Your task to perform on an android device: Go to Reddit.com Image 0: 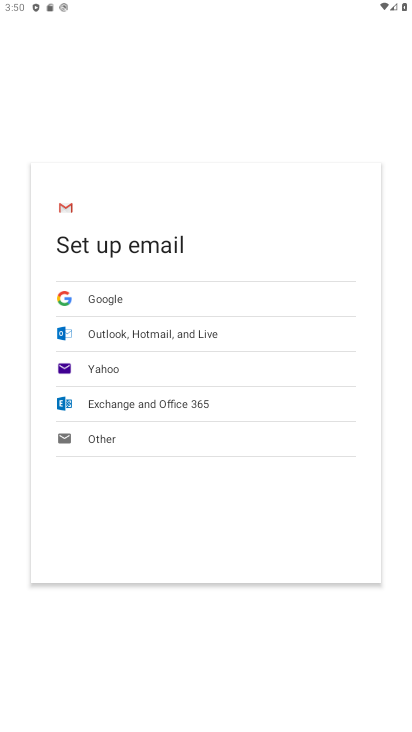
Step 0: press back button
Your task to perform on an android device: Go to Reddit.com Image 1: 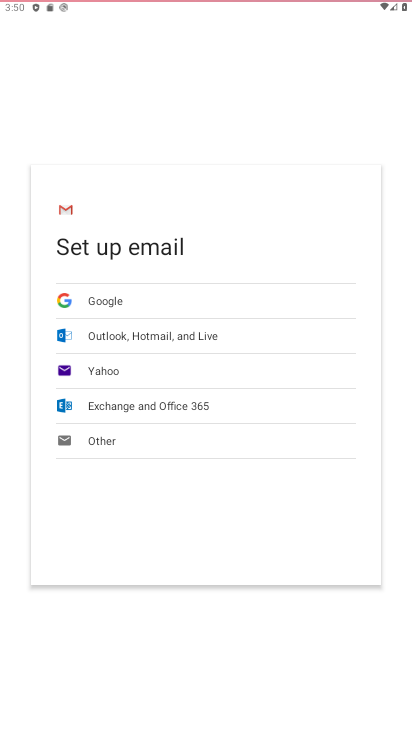
Step 1: press back button
Your task to perform on an android device: Go to Reddit.com Image 2: 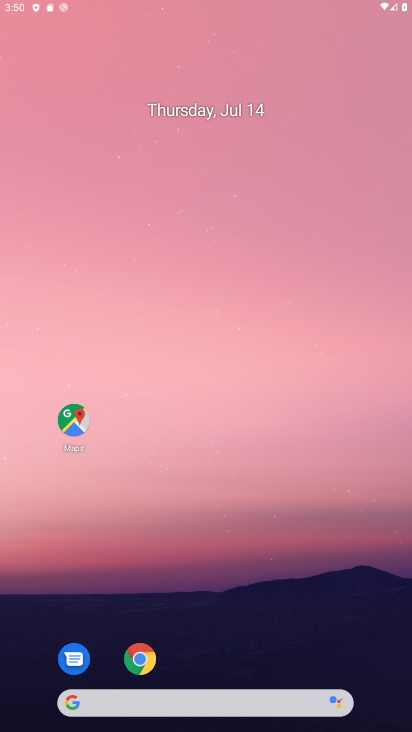
Step 2: press back button
Your task to perform on an android device: Go to Reddit.com Image 3: 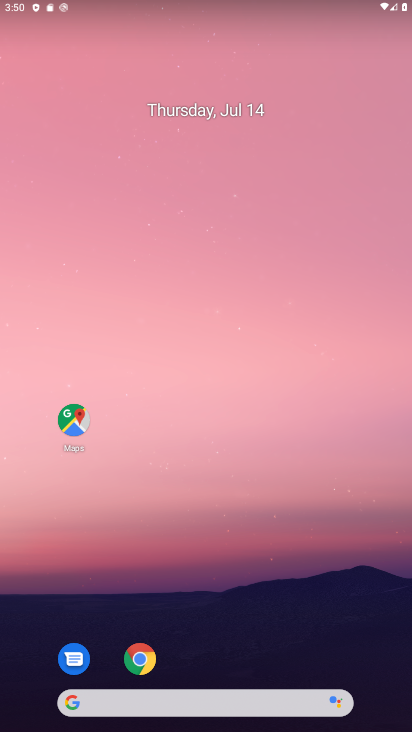
Step 3: drag from (254, 563) to (179, 113)
Your task to perform on an android device: Go to Reddit.com Image 4: 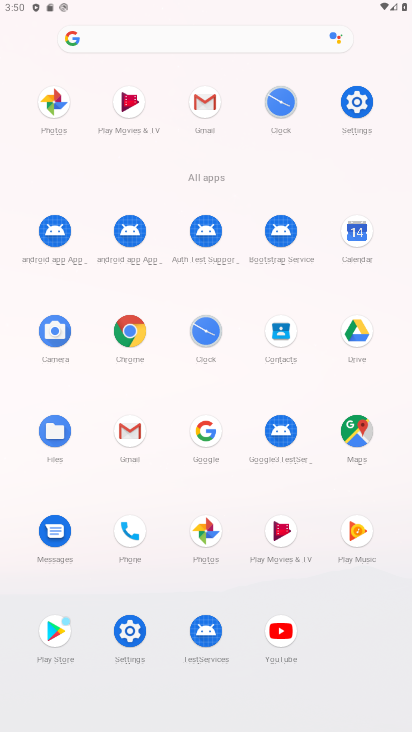
Step 4: click (129, 326)
Your task to perform on an android device: Go to Reddit.com Image 5: 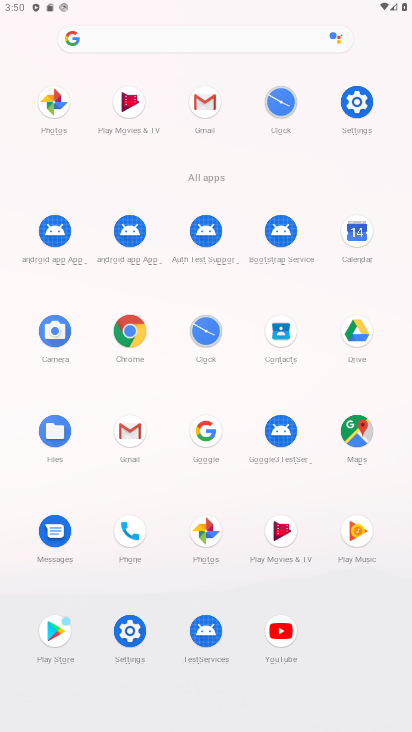
Step 5: click (130, 323)
Your task to perform on an android device: Go to Reddit.com Image 6: 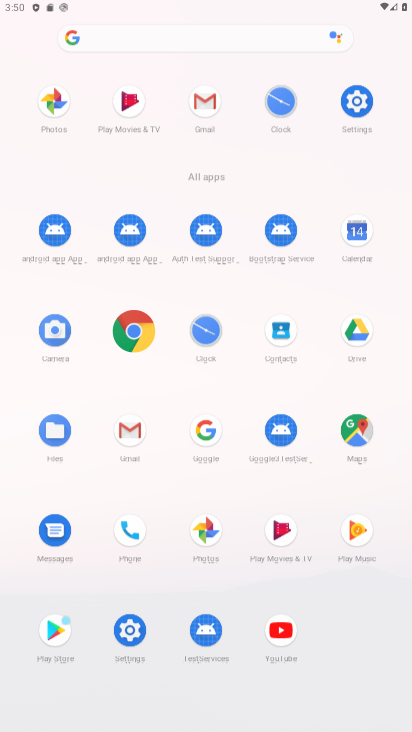
Step 6: click (132, 320)
Your task to perform on an android device: Go to Reddit.com Image 7: 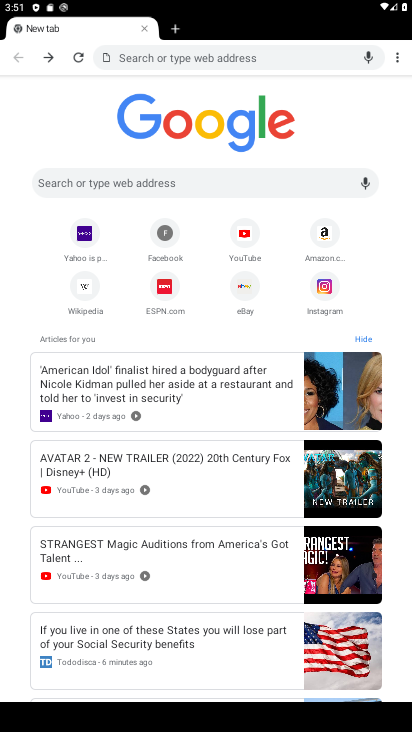
Step 7: click (89, 176)
Your task to perform on an android device: Go to Reddit.com Image 8: 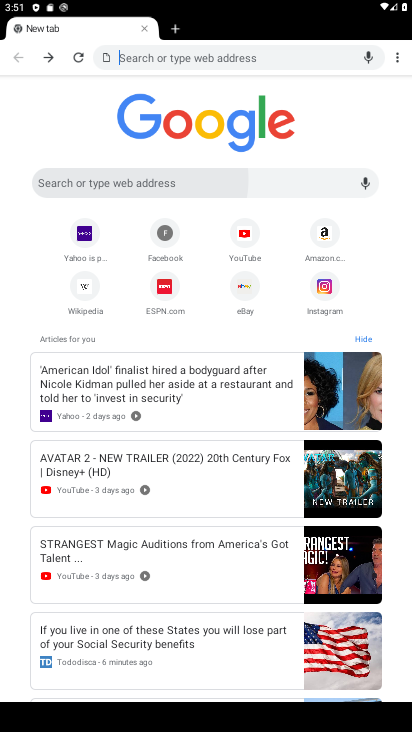
Step 8: click (89, 178)
Your task to perform on an android device: Go to Reddit.com Image 9: 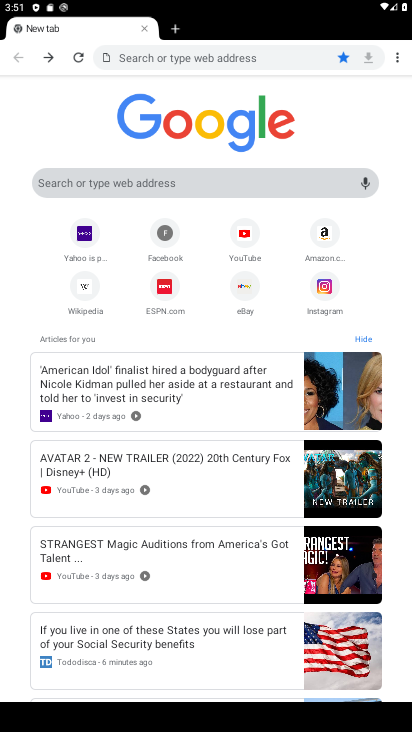
Step 9: click (90, 176)
Your task to perform on an android device: Go to Reddit.com Image 10: 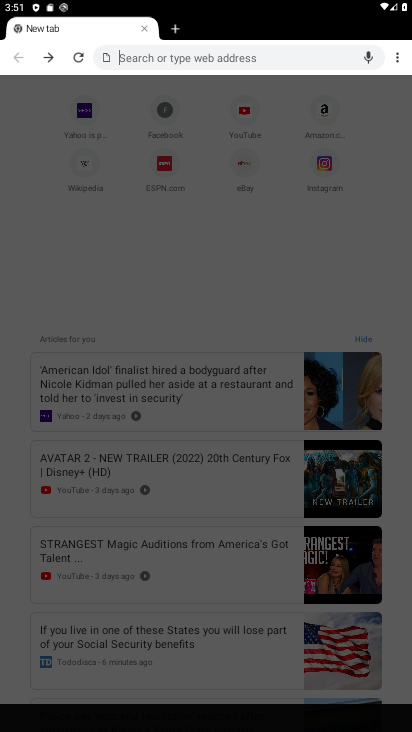
Step 10: click (96, 176)
Your task to perform on an android device: Go to Reddit.com Image 11: 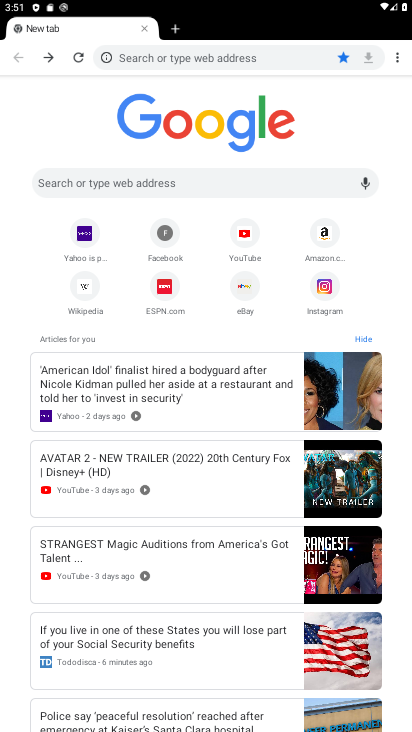
Step 11: click (81, 183)
Your task to perform on an android device: Go to Reddit.com Image 12: 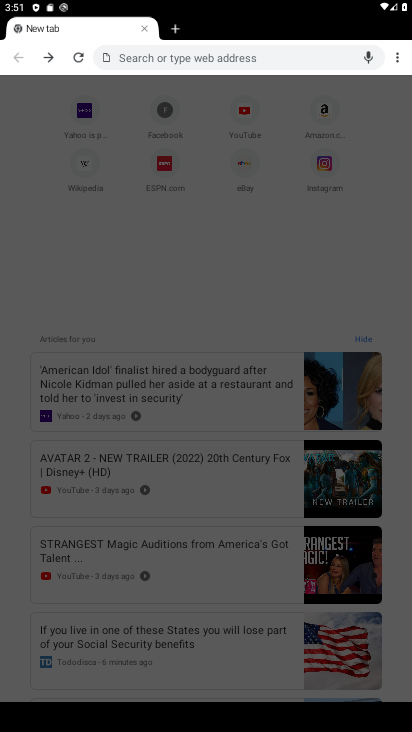
Step 12: type "reddit.com"
Your task to perform on an android device: Go to Reddit.com Image 13: 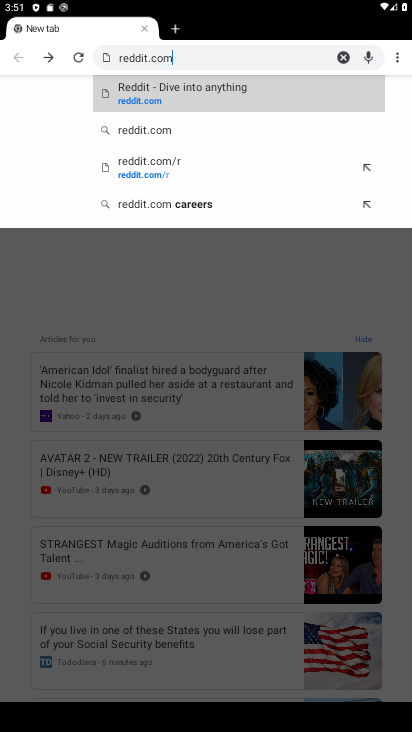
Step 13: click (161, 82)
Your task to perform on an android device: Go to Reddit.com Image 14: 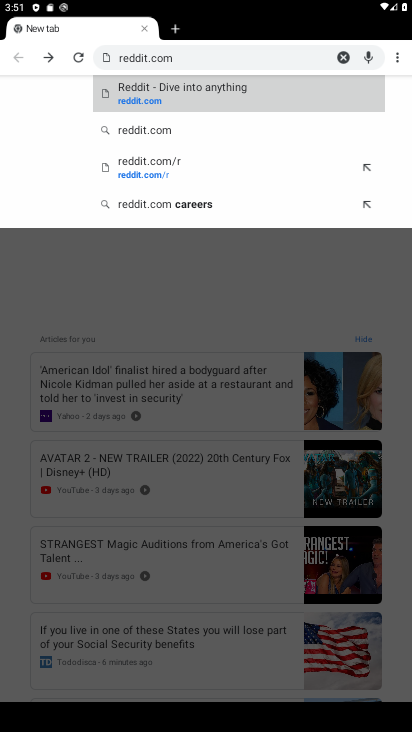
Step 14: click (176, 97)
Your task to perform on an android device: Go to Reddit.com Image 15: 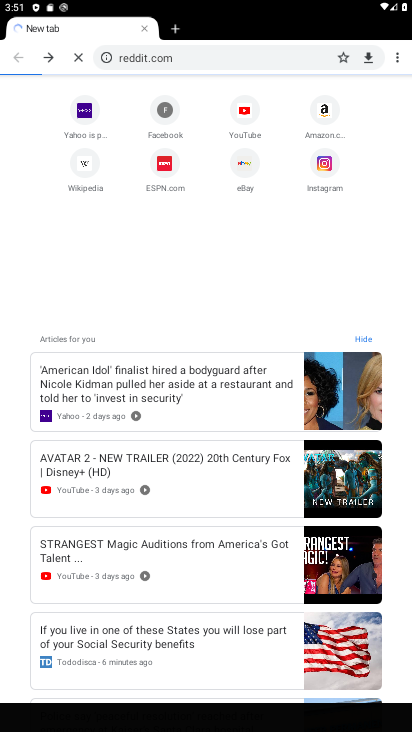
Step 15: click (178, 95)
Your task to perform on an android device: Go to Reddit.com Image 16: 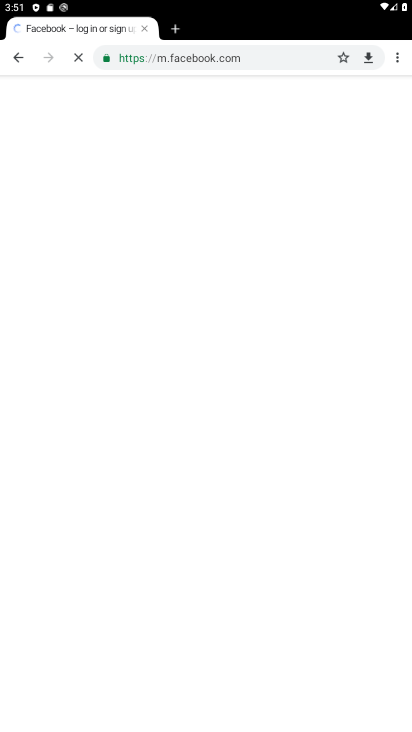
Step 16: task complete